Your task to perform on an android device: Open Yahoo.com Image 0: 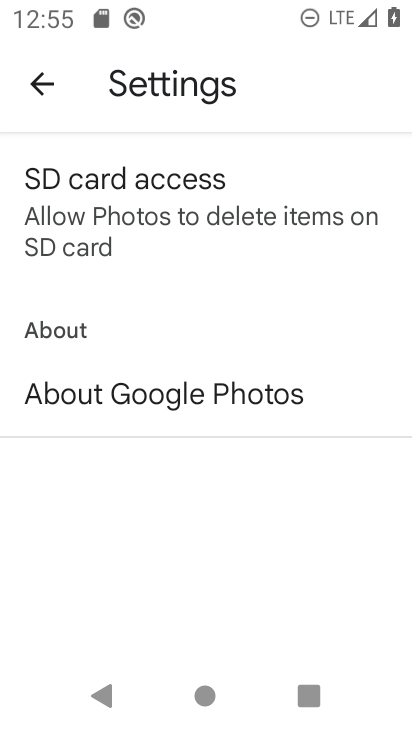
Step 0: press home button
Your task to perform on an android device: Open Yahoo.com Image 1: 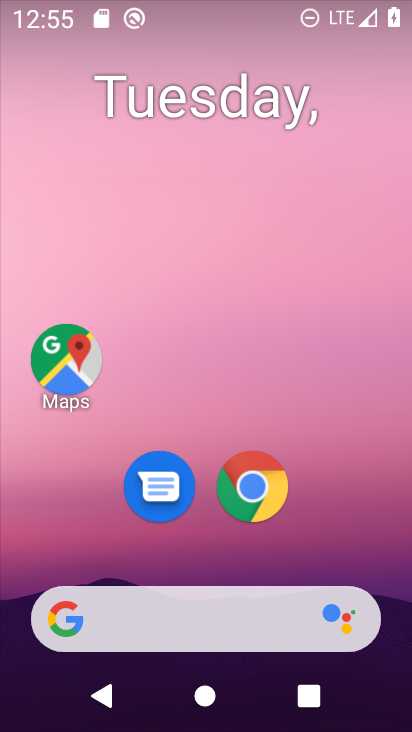
Step 1: drag from (173, 558) to (233, 176)
Your task to perform on an android device: Open Yahoo.com Image 2: 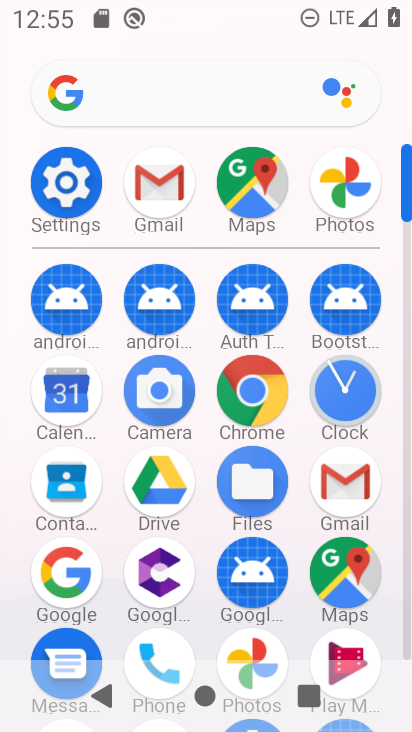
Step 2: drag from (207, 255) to (220, 26)
Your task to perform on an android device: Open Yahoo.com Image 3: 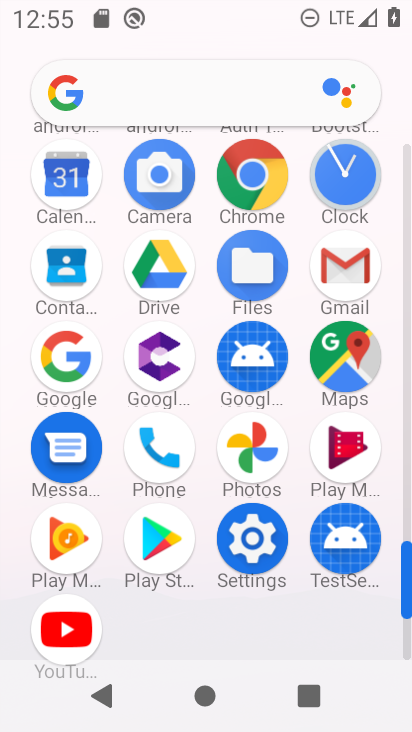
Step 3: click (249, 192)
Your task to perform on an android device: Open Yahoo.com Image 4: 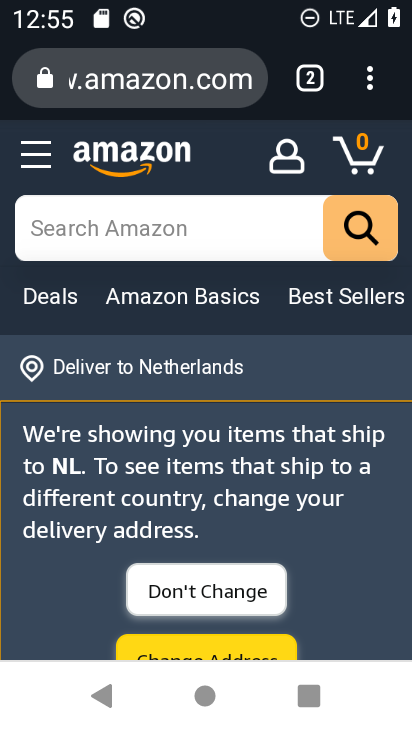
Step 4: click (321, 83)
Your task to perform on an android device: Open Yahoo.com Image 5: 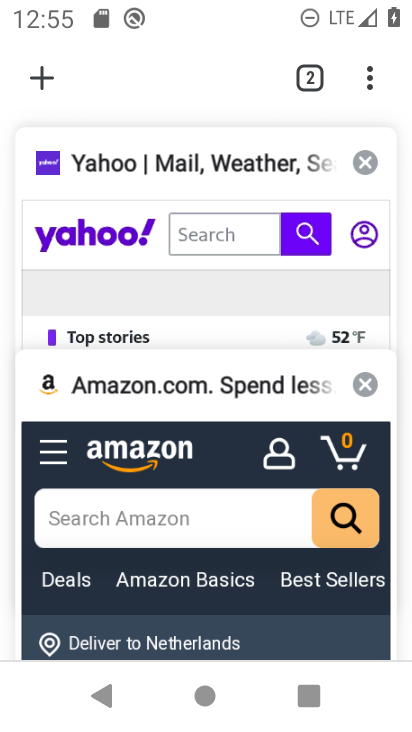
Step 5: click (43, 87)
Your task to perform on an android device: Open Yahoo.com Image 6: 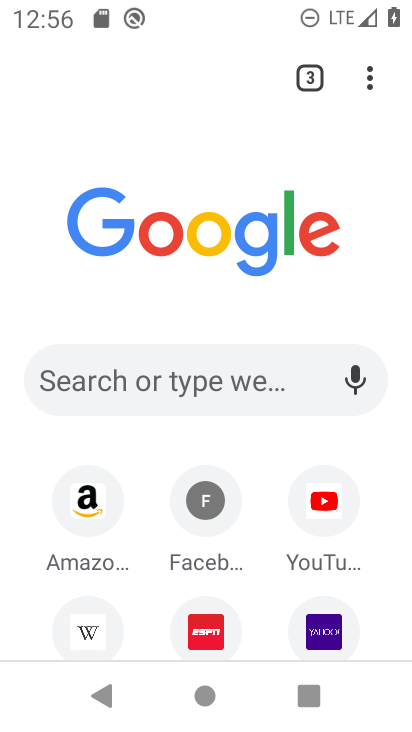
Step 6: click (317, 624)
Your task to perform on an android device: Open Yahoo.com Image 7: 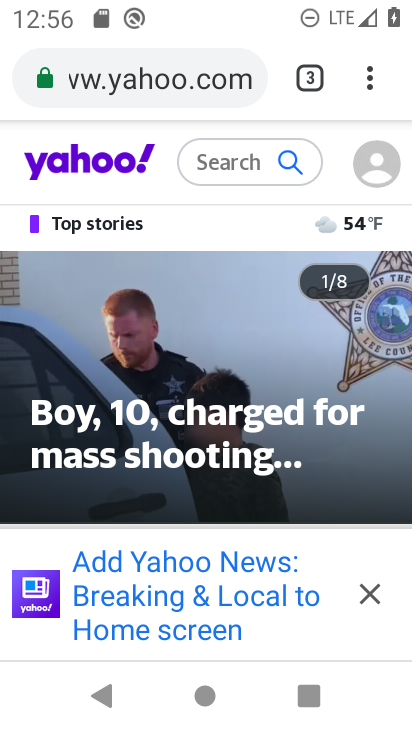
Step 7: task complete